Your task to perform on an android device: Open accessibility settings Image 0: 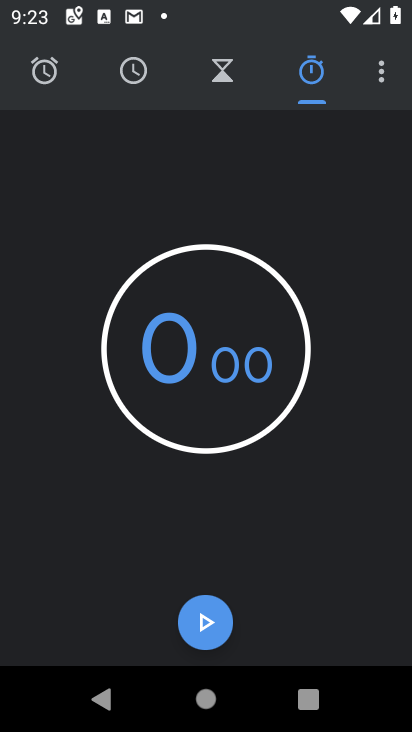
Step 0: press home button
Your task to perform on an android device: Open accessibility settings Image 1: 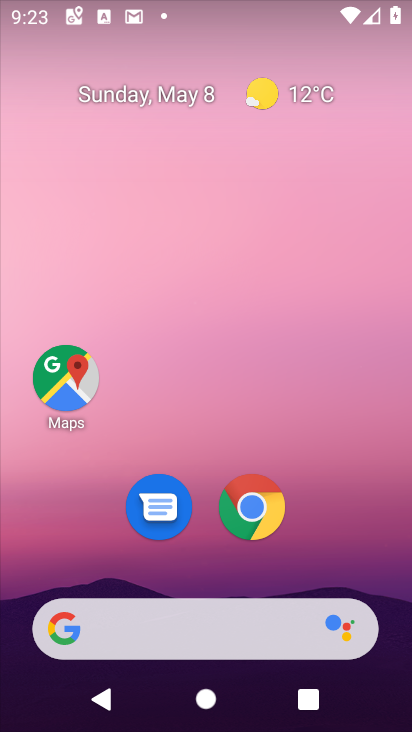
Step 1: drag from (249, 673) to (284, 47)
Your task to perform on an android device: Open accessibility settings Image 2: 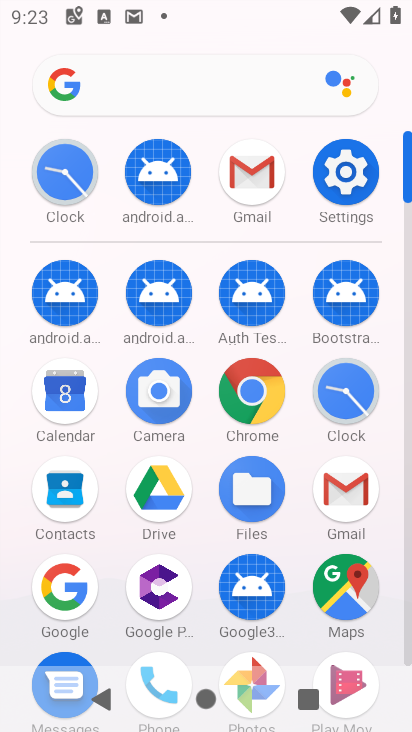
Step 2: click (343, 192)
Your task to perform on an android device: Open accessibility settings Image 3: 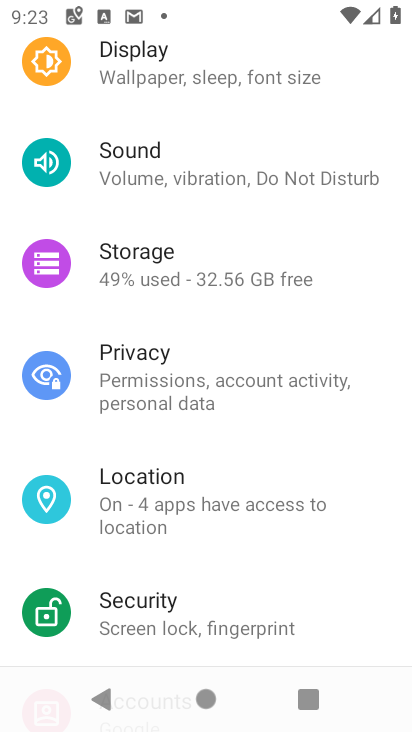
Step 3: drag from (296, 623) to (189, 125)
Your task to perform on an android device: Open accessibility settings Image 4: 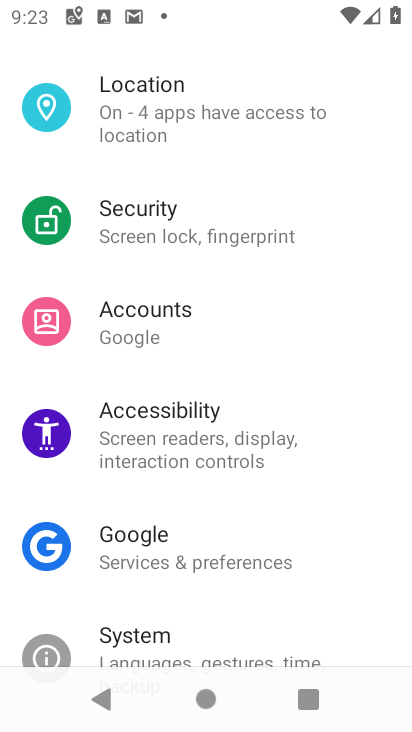
Step 4: drag from (225, 608) to (144, 144)
Your task to perform on an android device: Open accessibility settings Image 5: 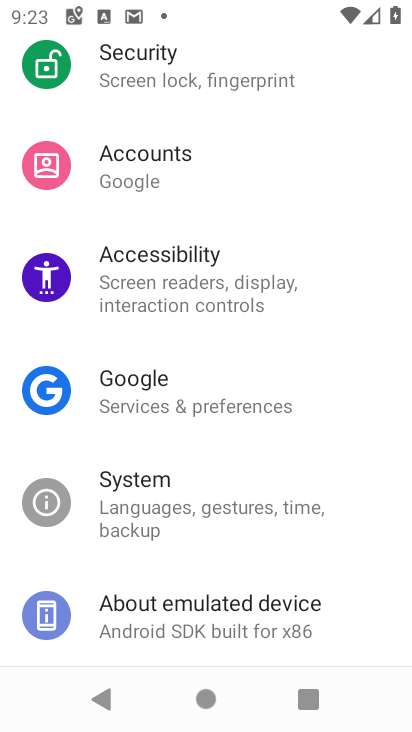
Step 5: click (201, 277)
Your task to perform on an android device: Open accessibility settings Image 6: 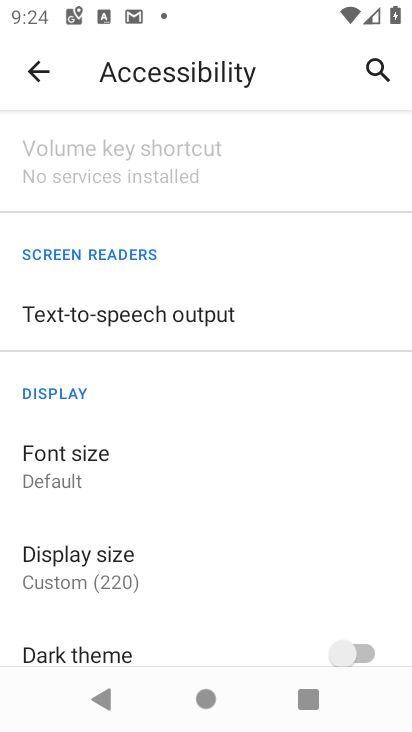
Step 6: task complete